Your task to perform on an android device: Open maps Image 0: 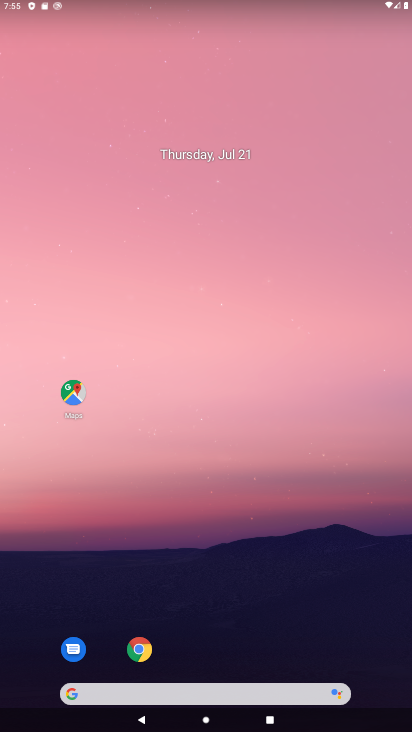
Step 0: click (69, 384)
Your task to perform on an android device: Open maps Image 1: 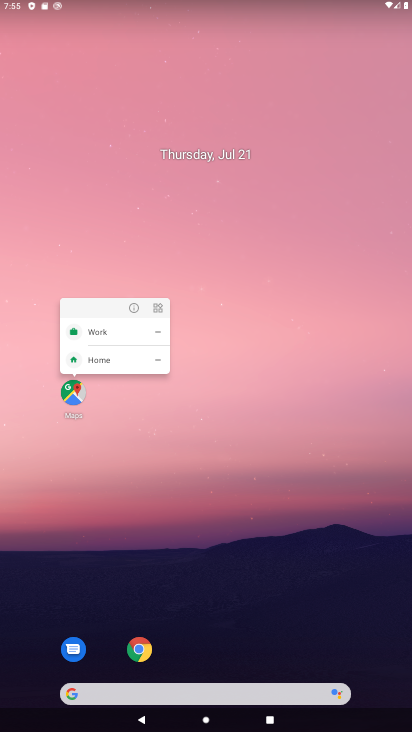
Step 1: click (74, 397)
Your task to perform on an android device: Open maps Image 2: 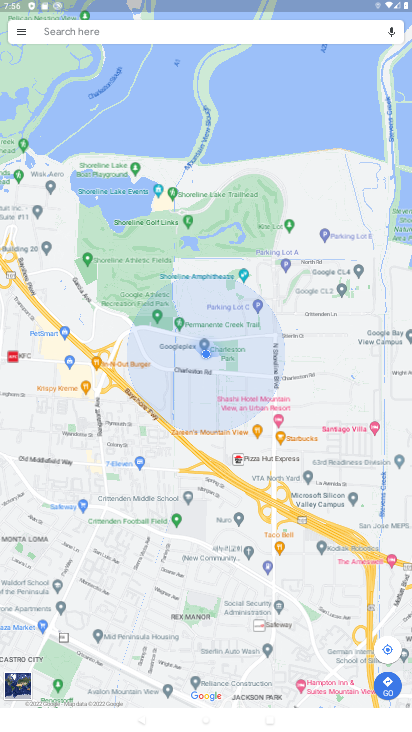
Step 2: task complete